Your task to perform on an android device: Go to CNN.com Image 0: 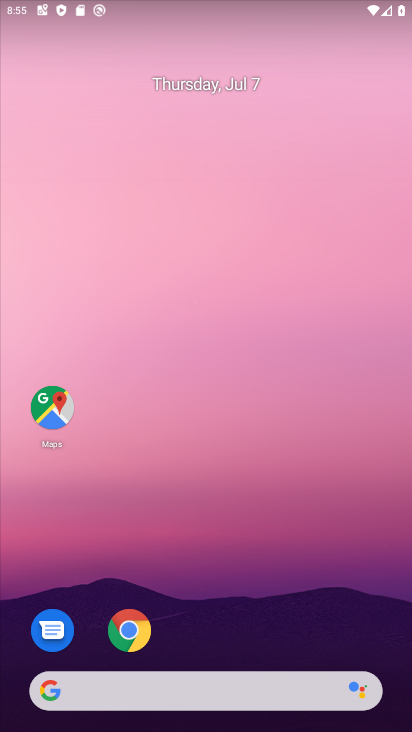
Step 0: drag from (198, 631) to (286, 59)
Your task to perform on an android device: Go to CNN.com Image 1: 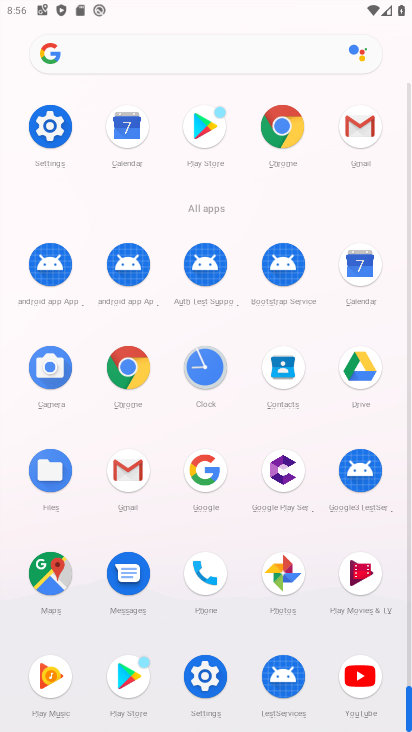
Step 1: click (275, 130)
Your task to perform on an android device: Go to CNN.com Image 2: 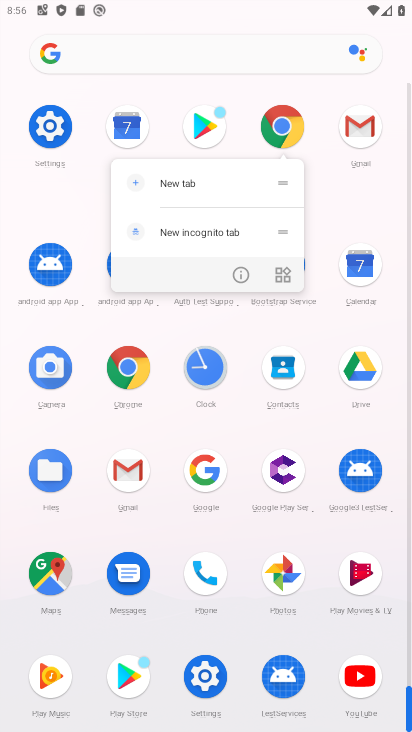
Step 2: click (232, 275)
Your task to perform on an android device: Go to CNN.com Image 3: 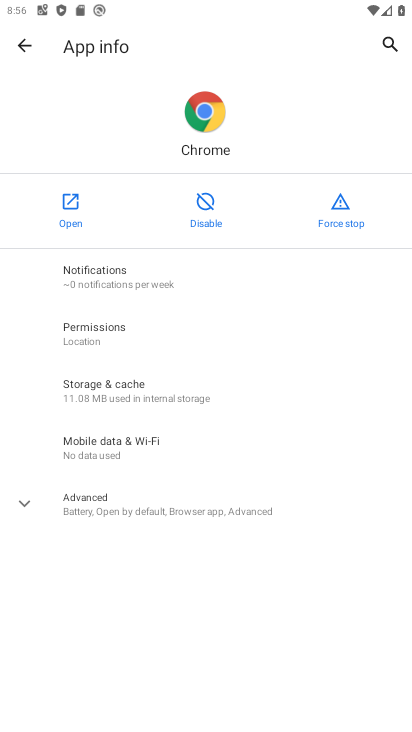
Step 3: click (84, 213)
Your task to perform on an android device: Go to CNN.com Image 4: 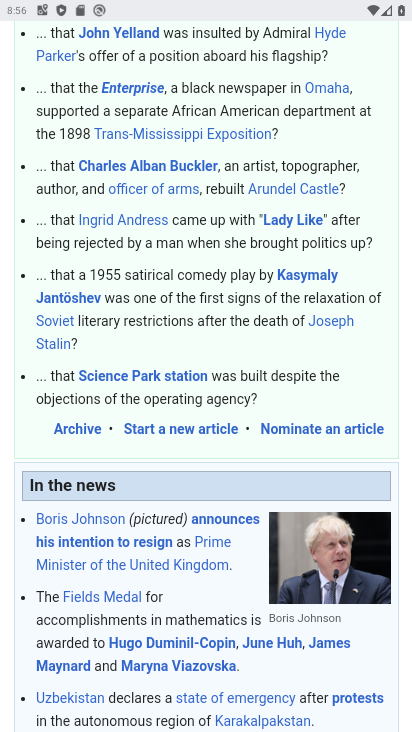
Step 4: drag from (222, 561) to (337, 117)
Your task to perform on an android device: Go to CNN.com Image 5: 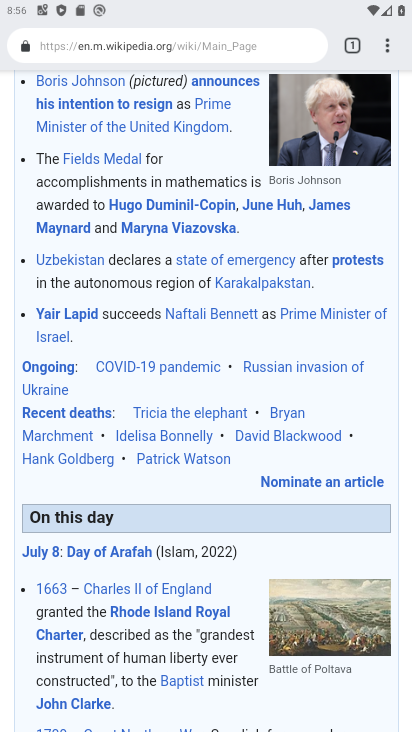
Step 5: drag from (134, 530) to (277, 41)
Your task to perform on an android device: Go to CNN.com Image 6: 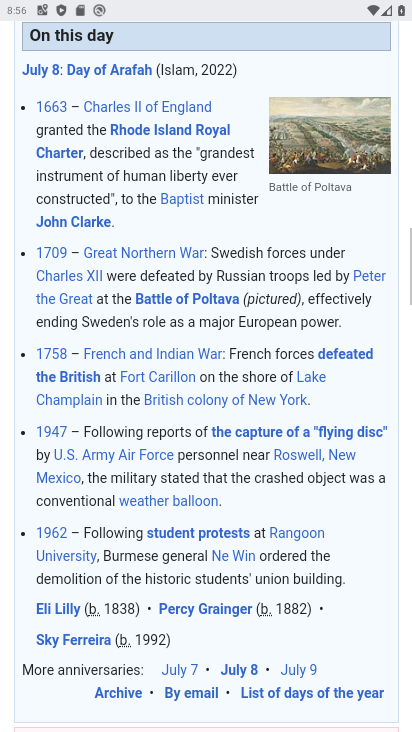
Step 6: drag from (274, 0) to (297, 717)
Your task to perform on an android device: Go to CNN.com Image 7: 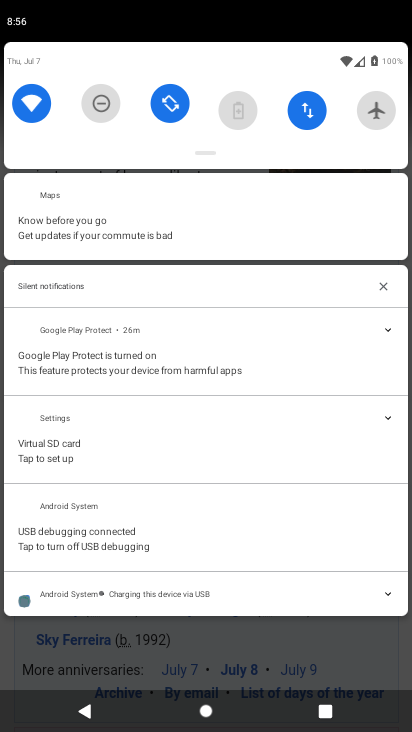
Step 7: drag from (298, 146) to (273, 726)
Your task to perform on an android device: Go to CNN.com Image 8: 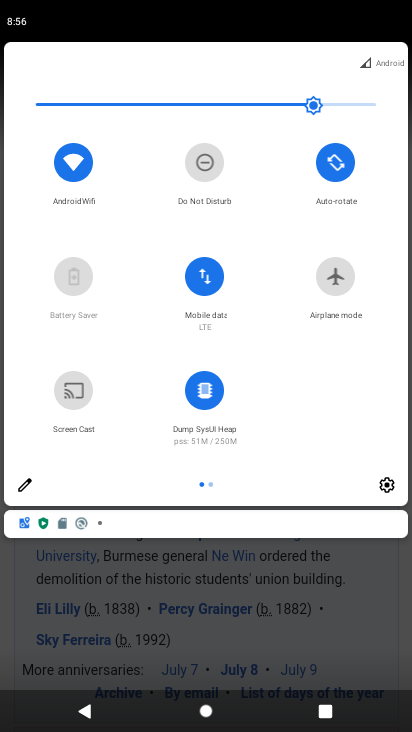
Step 8: drag from (247, 590) to (312, 210)
Your task to perform on an android device: Go to CNN.com Image 9: 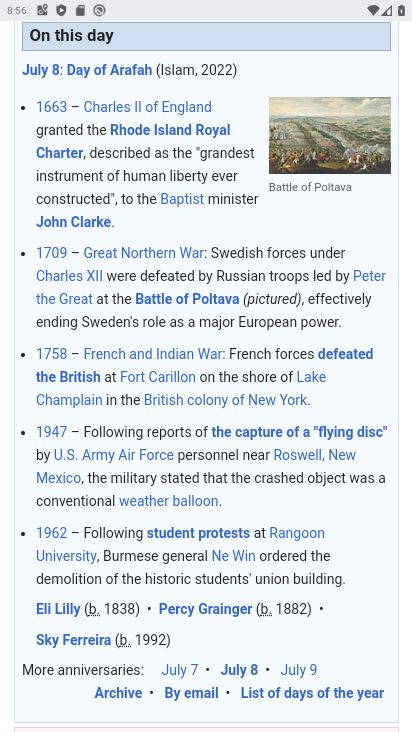
Step 9: drag from (209, 180) to (328, 727)
Your task to perform on an android device: Go to CNN.com Image 10: 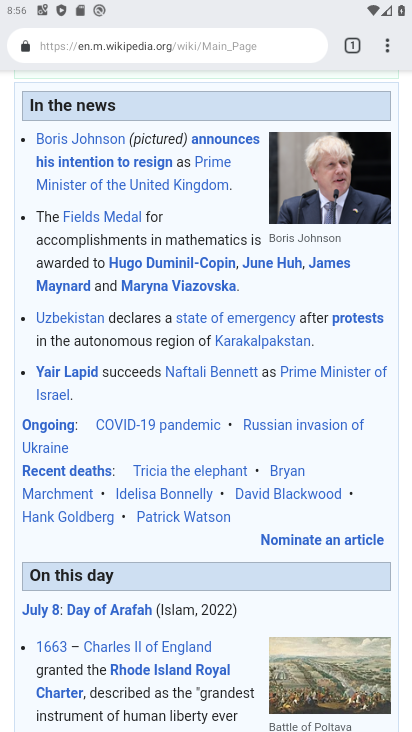
Step 10: click (344, 45)
Your task to perform on an android device: Go to CNN.com Image 11: 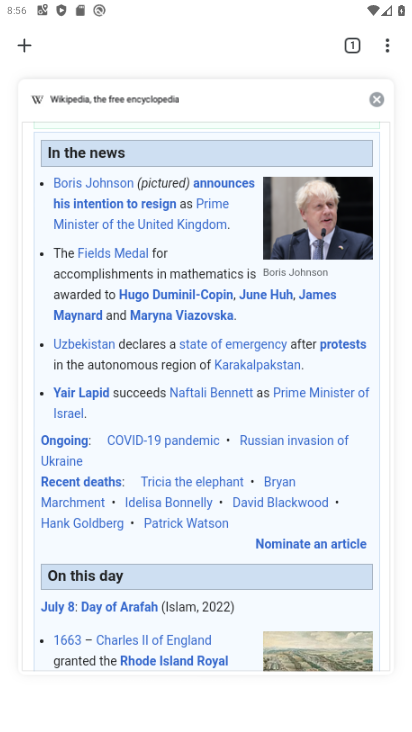
Step 11: click (375, 106)
Your task to perform on an android device: Go to CNN.com Image 12: 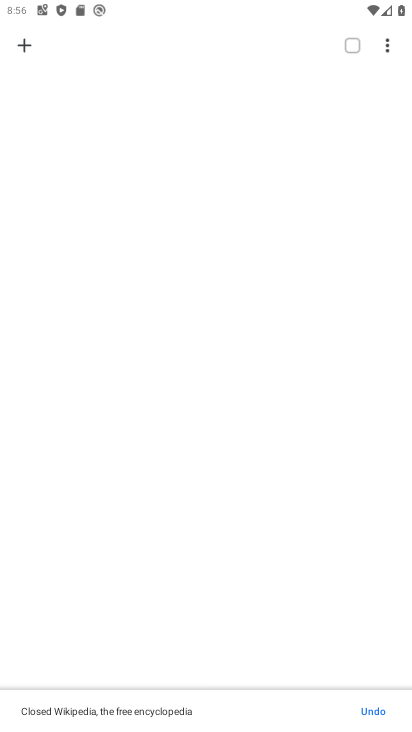
Step 12: click (27, 46)
Your task to perform on an android device: Go to CNN.com Image 13: 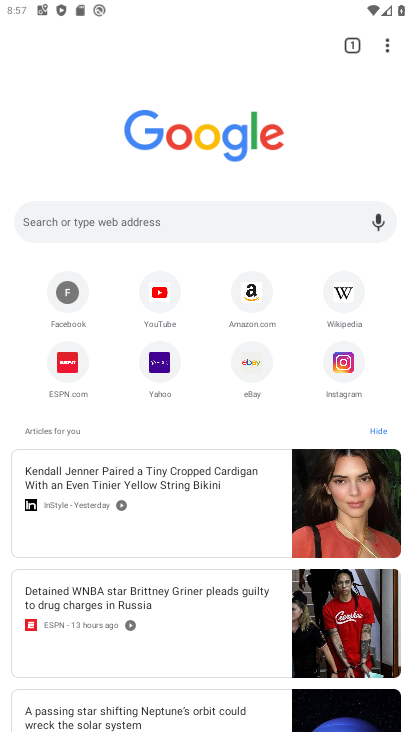
Step 13: click (249, 213)
Your task to perform on an android device: Go to CNN.com Image 14: 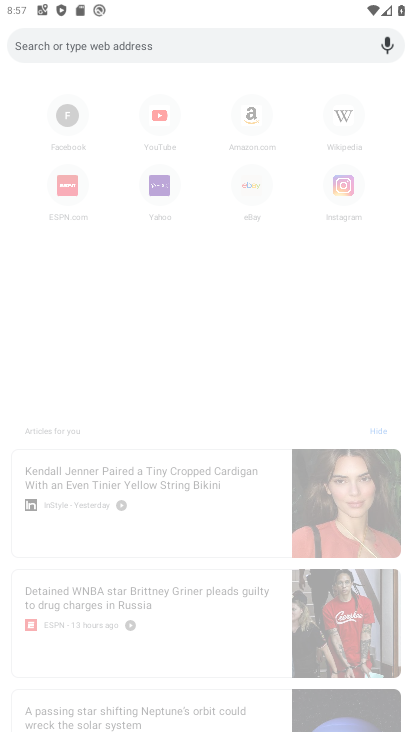
Step 14: type ""
Your task to perform on an android device: Go to CNN.com Image 15: 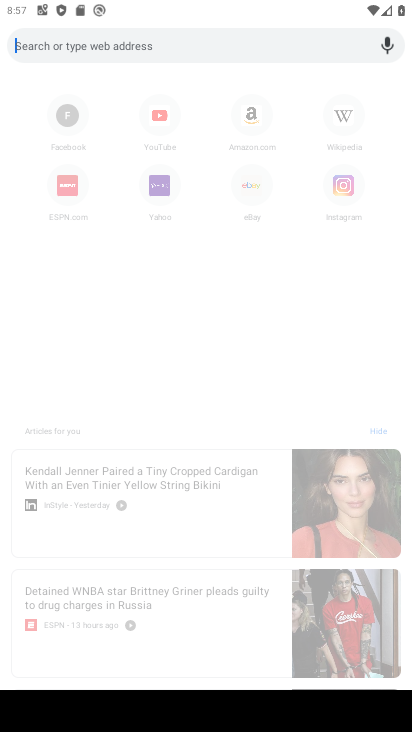
Step 15: type "cnm.com"
Your task to perform on an android device: Go to CNN.com Image 16: 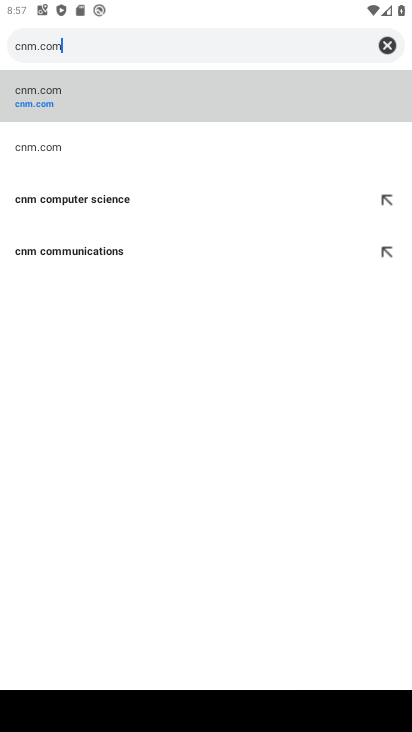
Step 16: click (61, 103)
Your task to perform on an android device: Go to CNN.com Image 17: 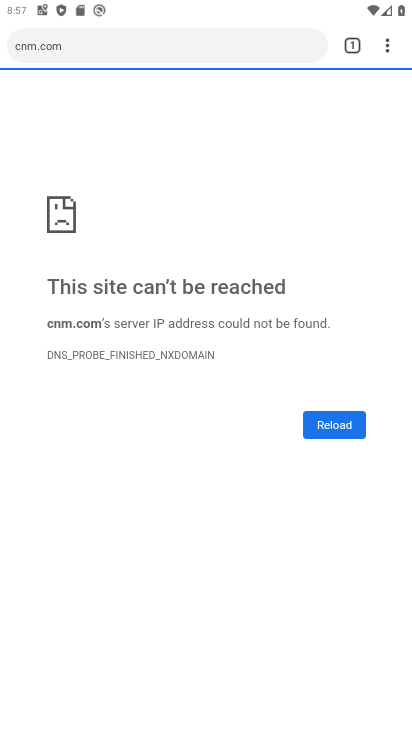
Step 17: task complete